Your task to perform on an android device: uninstall "PlayWell" Image 0: 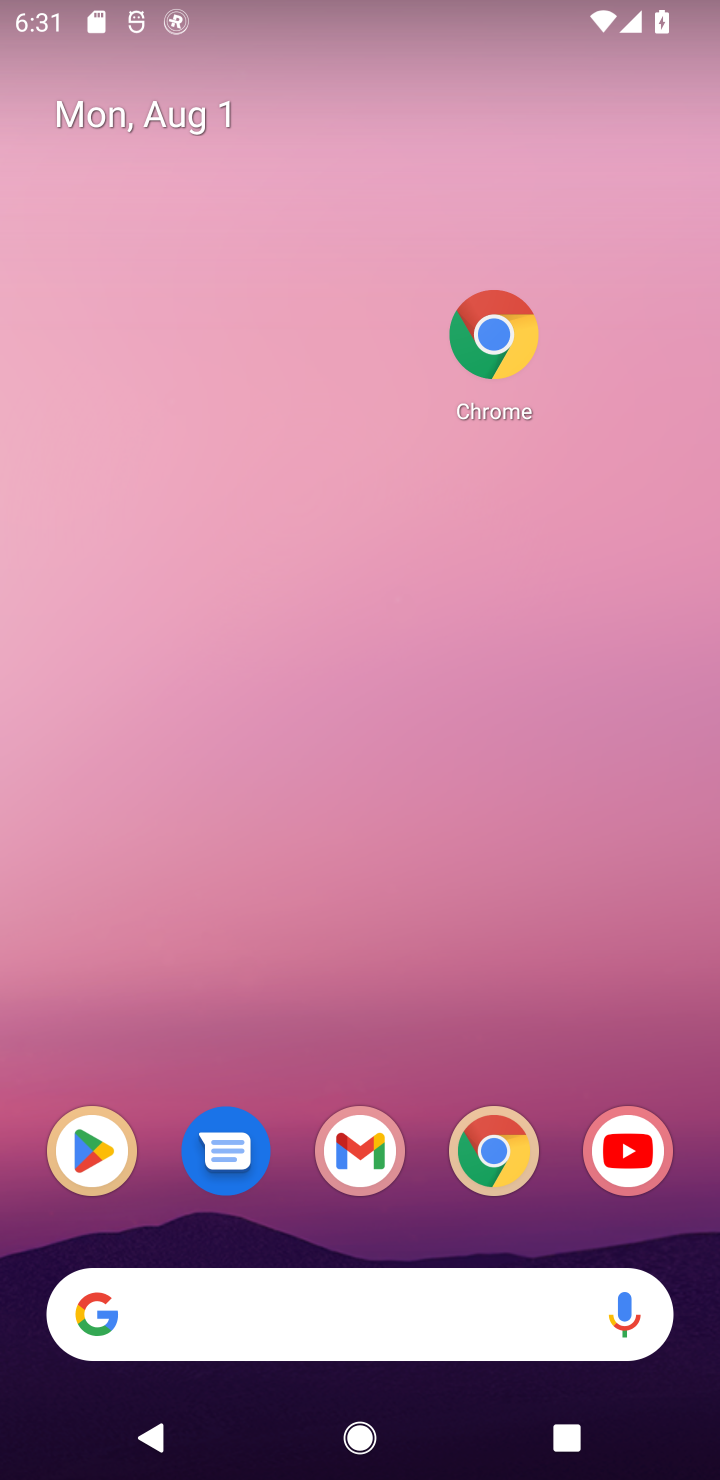
Step 0: click (103, 1147)
Your task to perform on an android device: uninstall "PlayWell" Image 1: 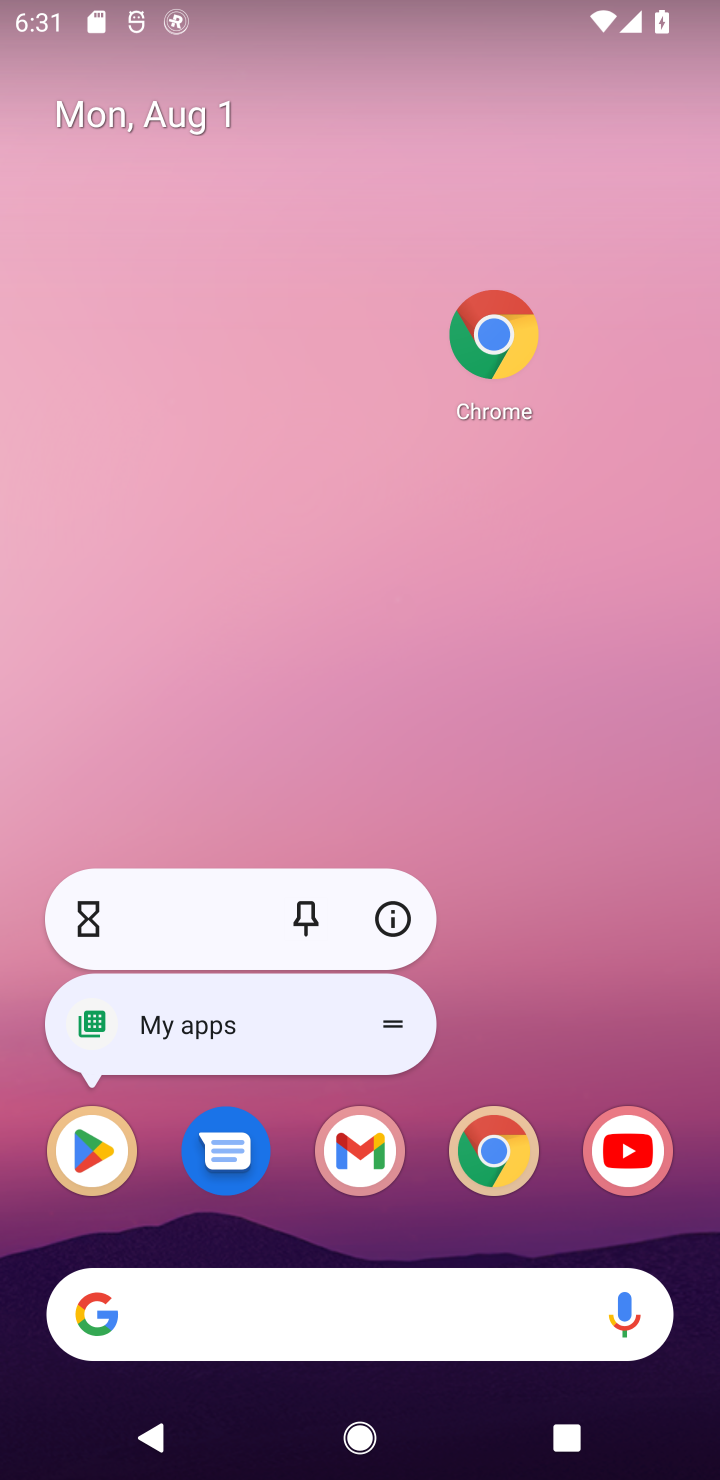
Step 1: click (90, 1177)
Your task to perform on an android device: uninstall "PlayWell" Image 2: 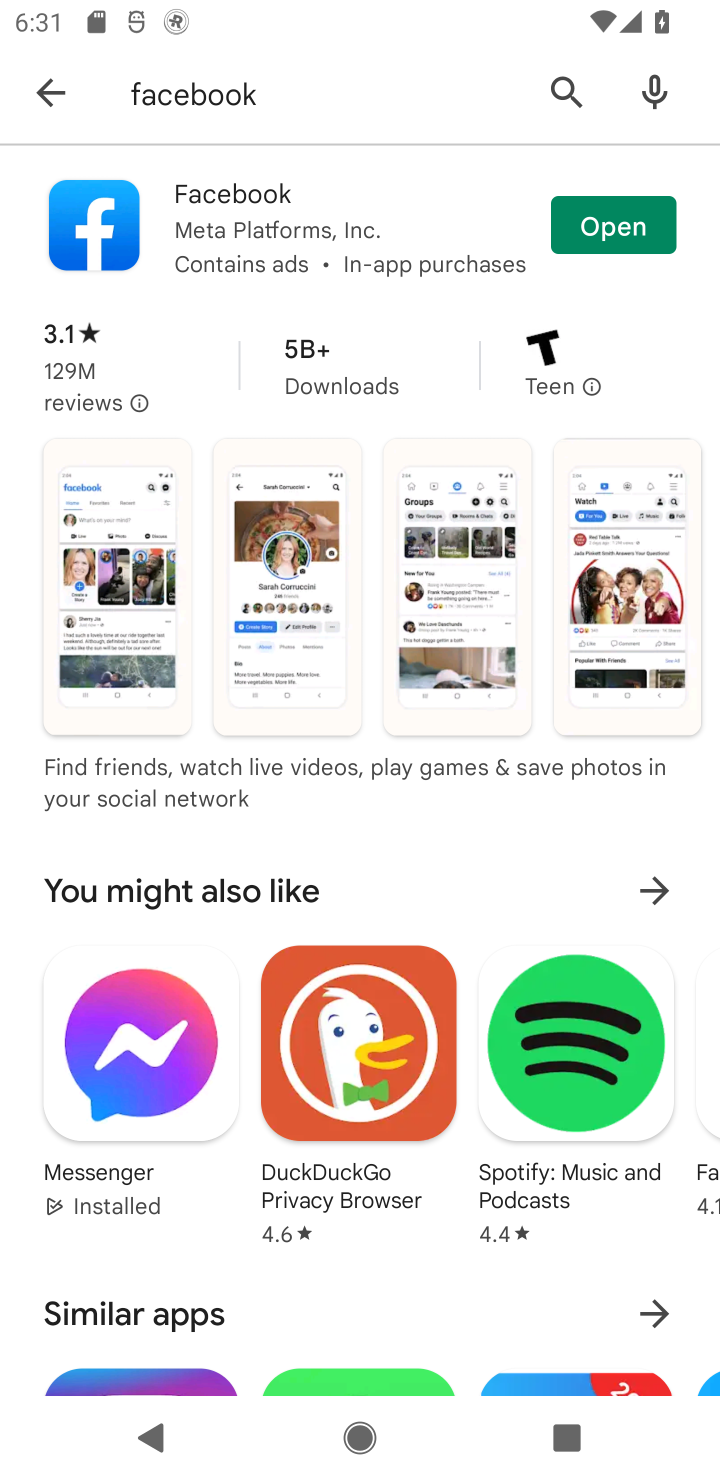
Step 2: click (555, 79)
Your task to perform on an android device: uninstall "PlayWell" Image 3: 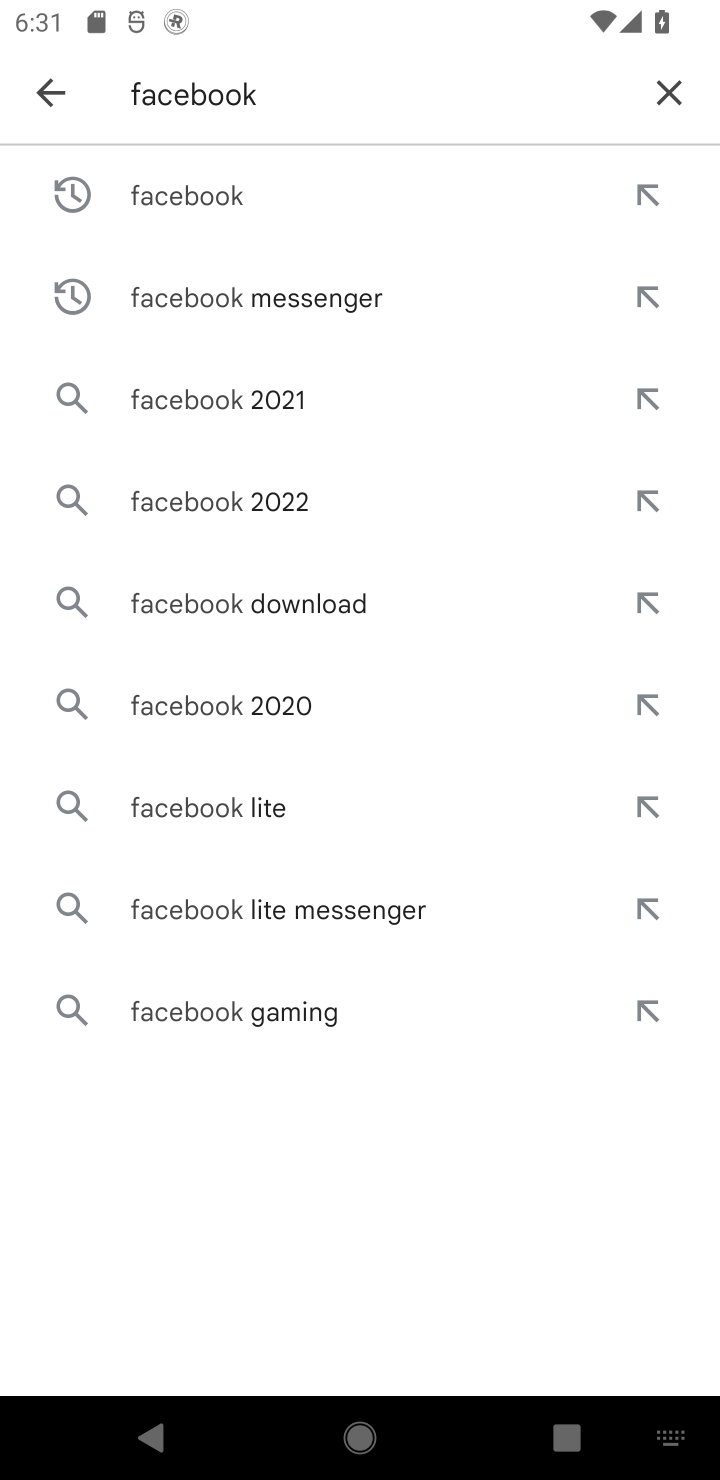
Step 3: click (655, 92)
Your task to perform on an android device: uninstall "PlayWell" Image 4: 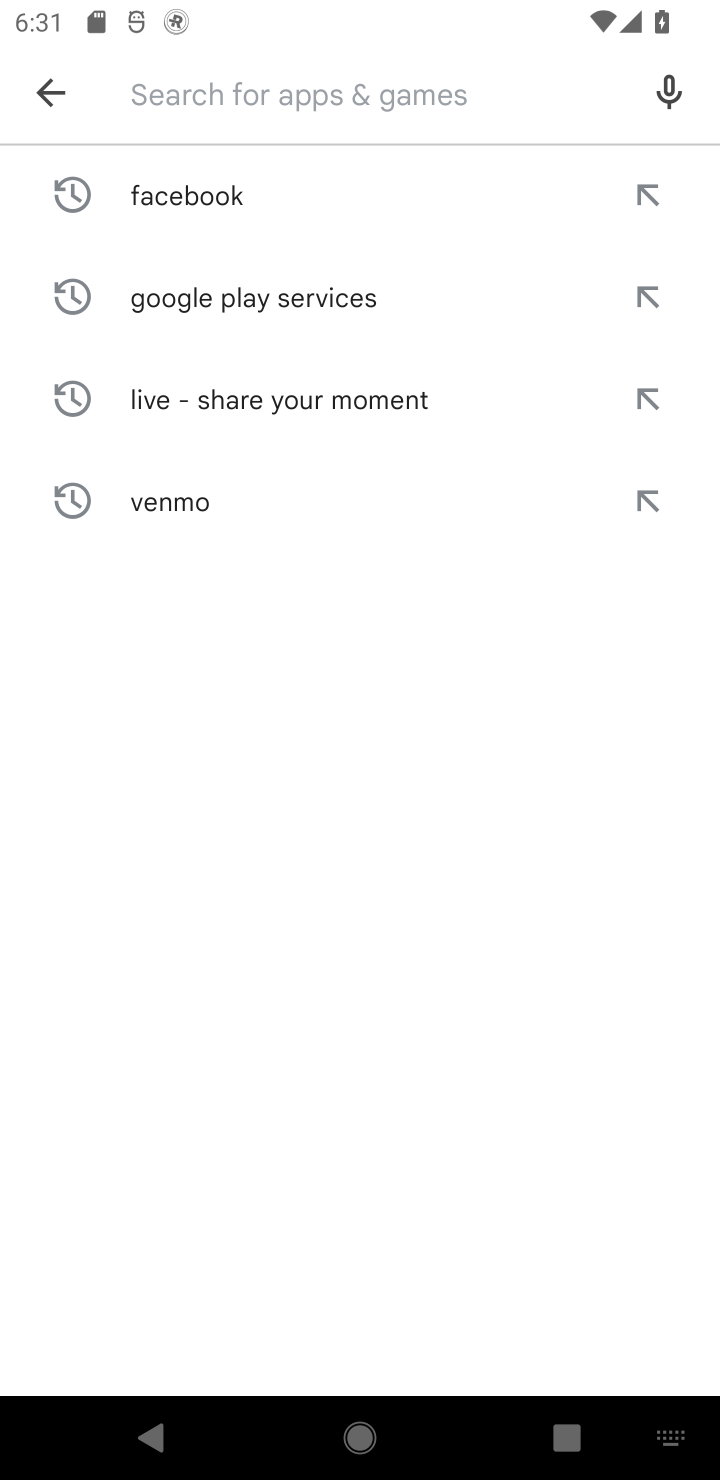
Step 4: type "PlayWell"
Your task to perform on an android device: uninstall "PlayWell" Image 5: 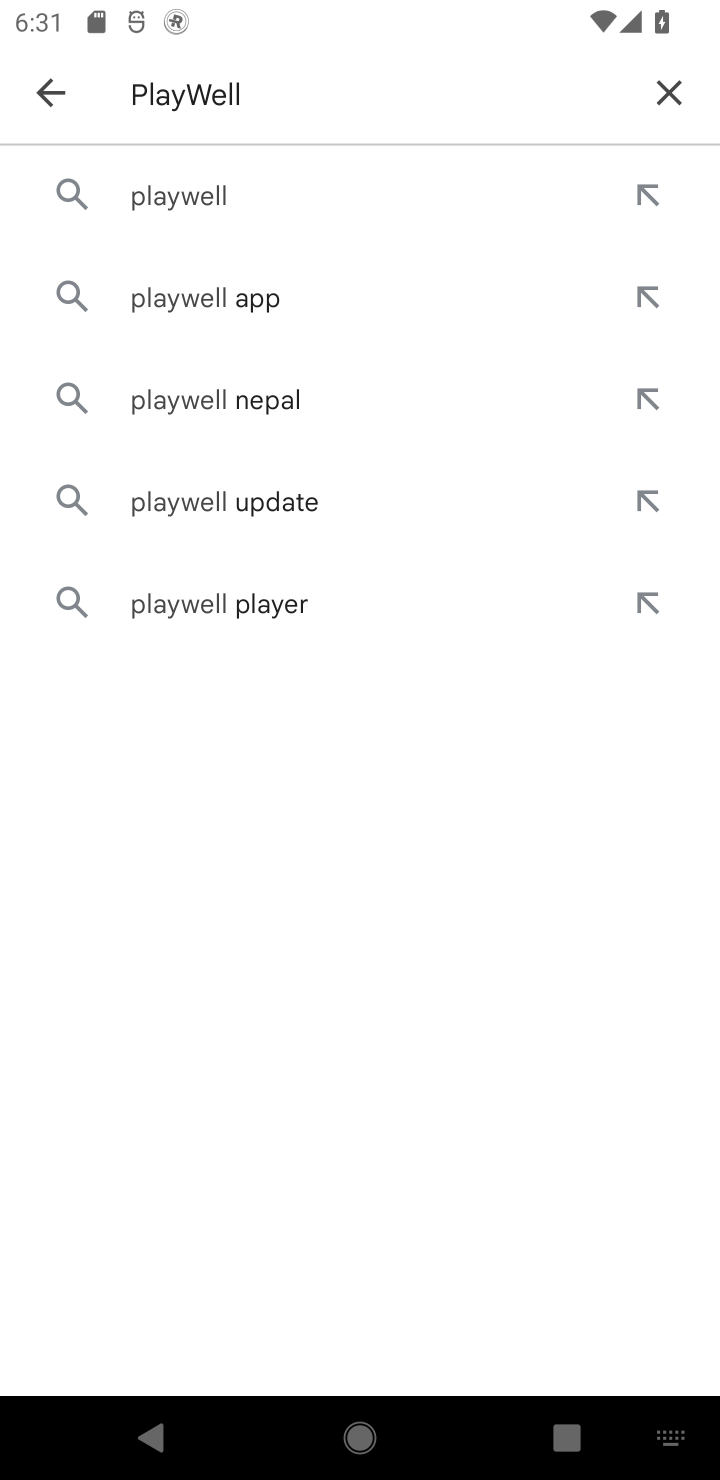
Step 5: click (151, 204)
Your task to perform on an android device: uninstall "PlayWell" Image 6: 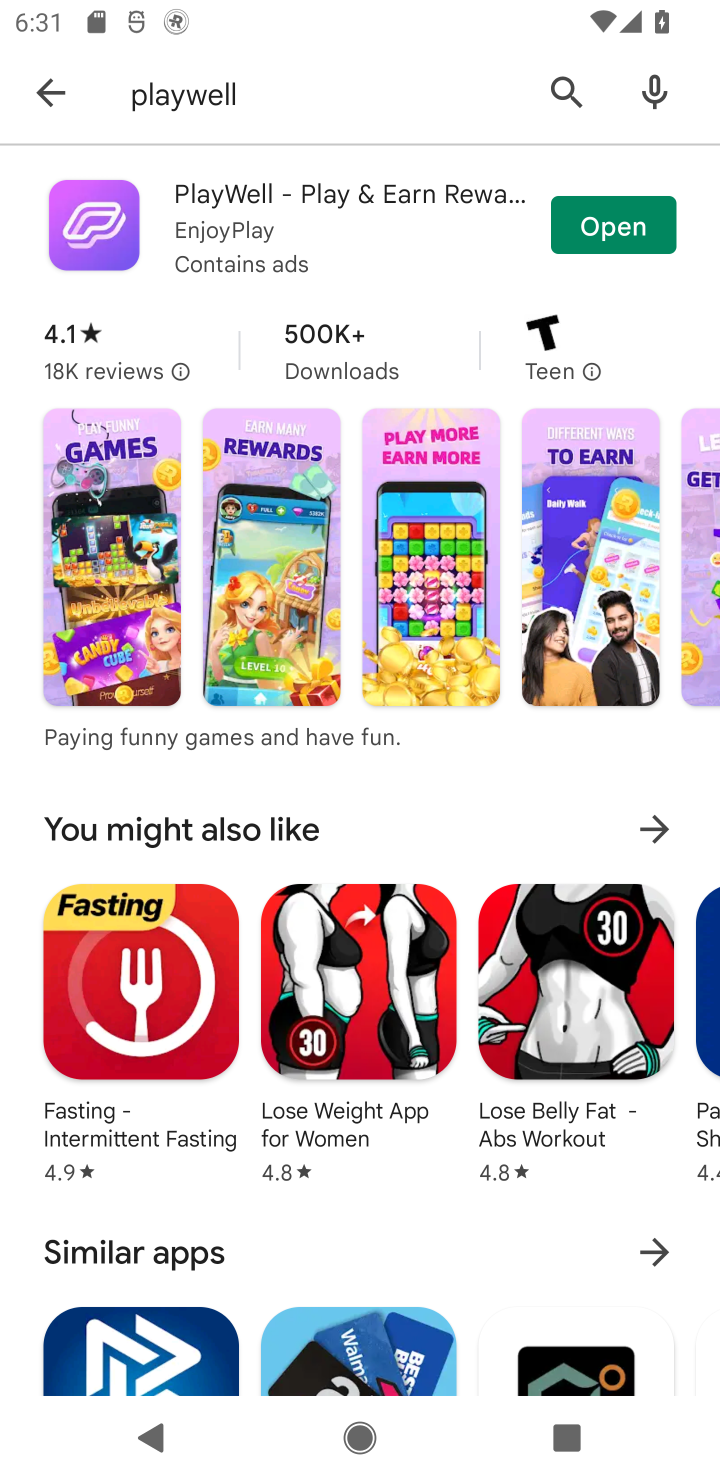
Step 6: click (151, 204)
Your task to perform on an android device: uninstall "PlayWell" Image 7: 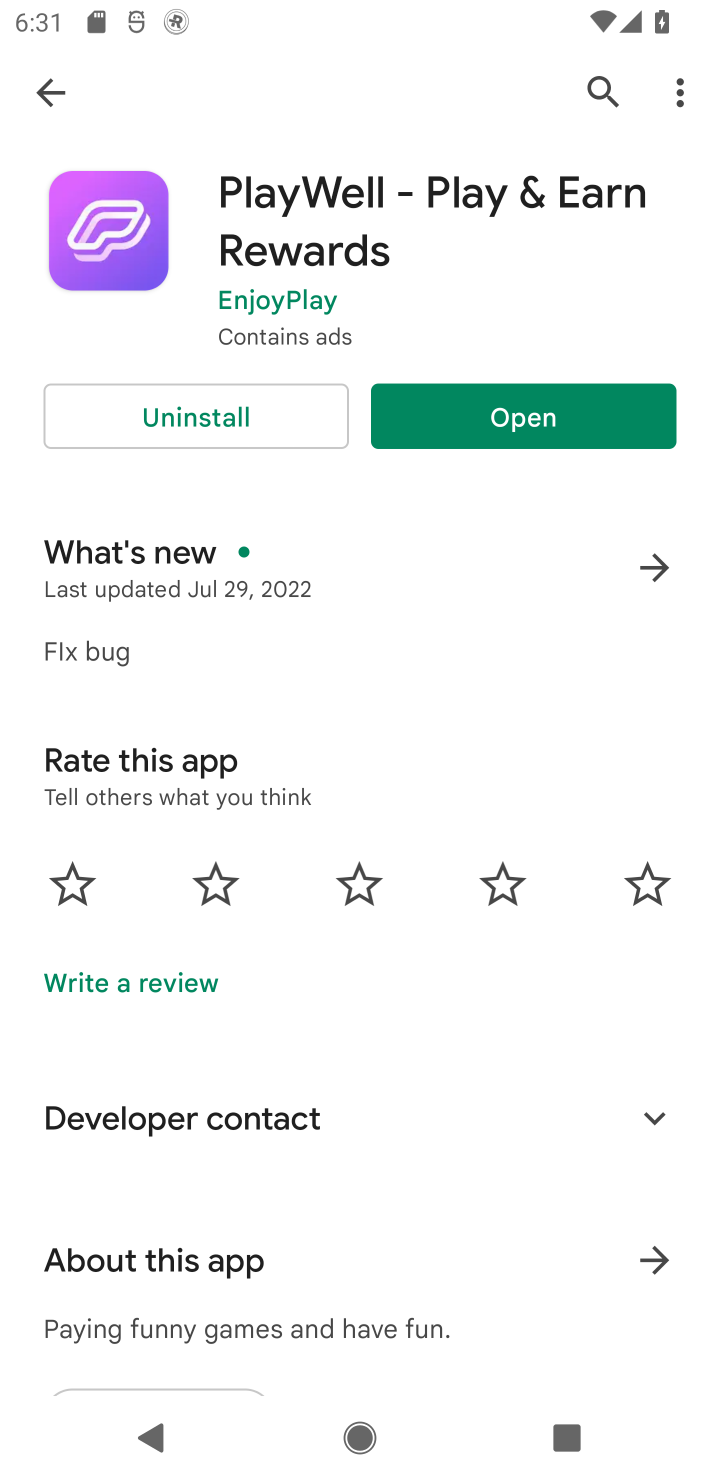
Step 7: click (166, 407)
Your task to perform on an android device: uninstall "PlayWell" Image 8: 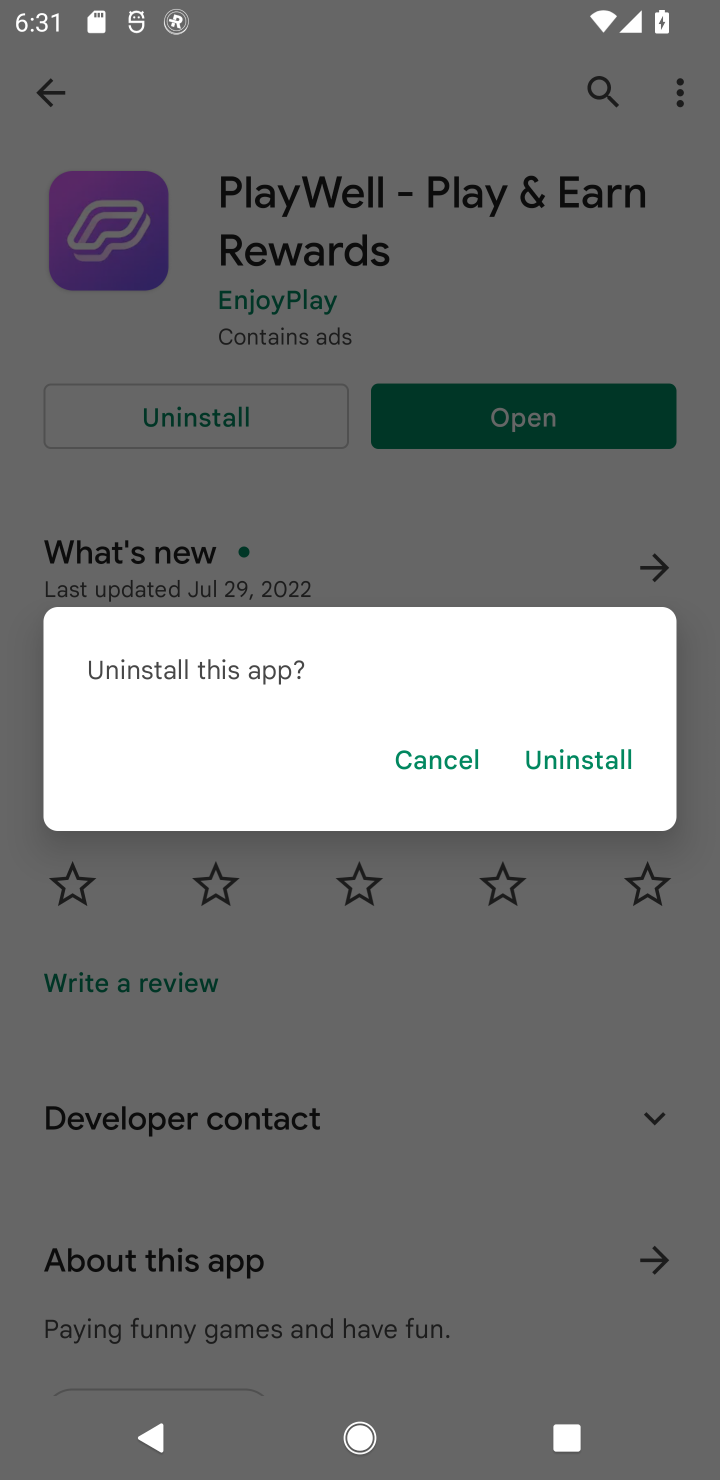
Step 8: click (585, 758)
Your task to perform on an android device: uninstall "PlayWell" Image 9: 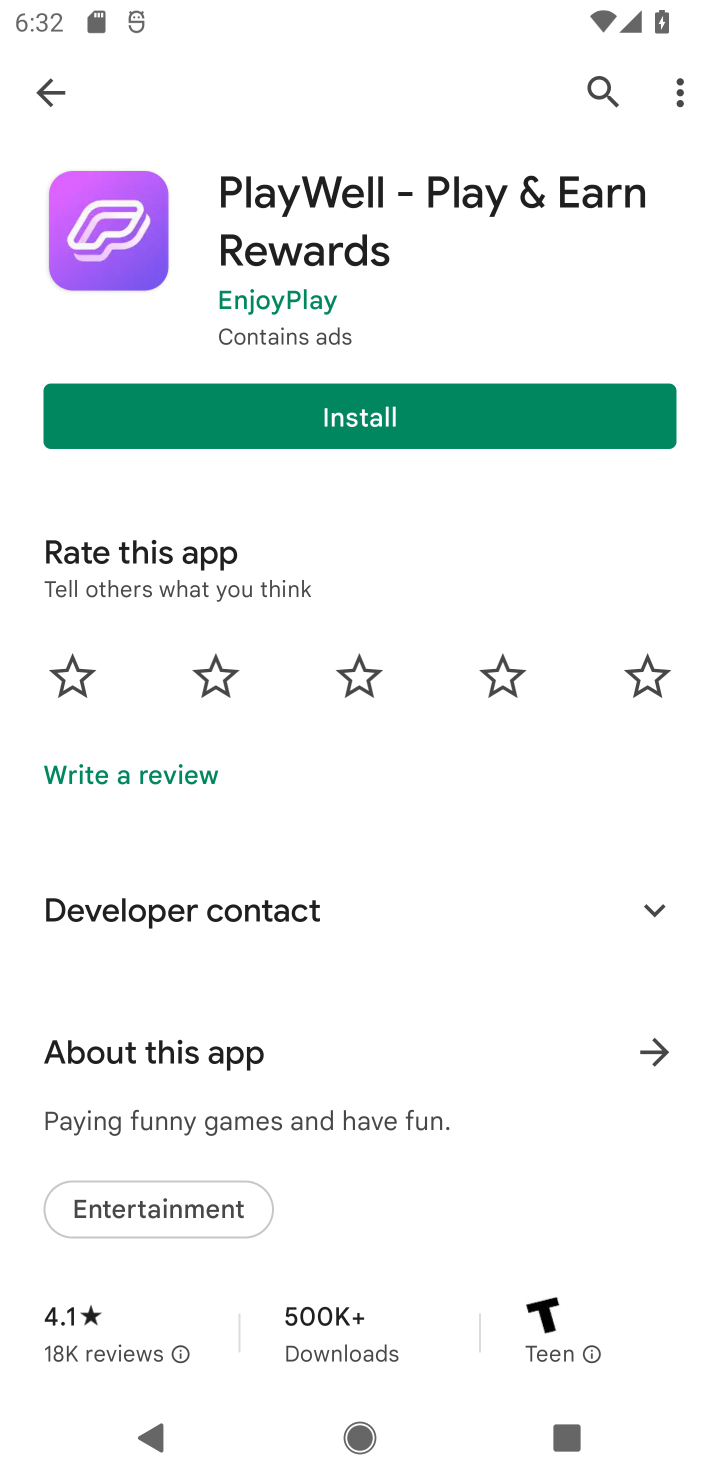
Step 9: task complete